Your task to perform on an android device: Play the last video I watched on Youtube Image 0: 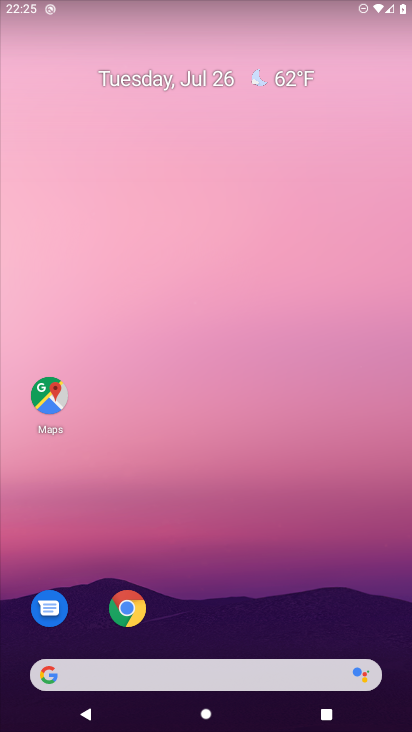
Step 0: drag from (20, 695) to (192, 94)
Your task to perform on an android device: Play the last video I watched on Youtube Image 1: 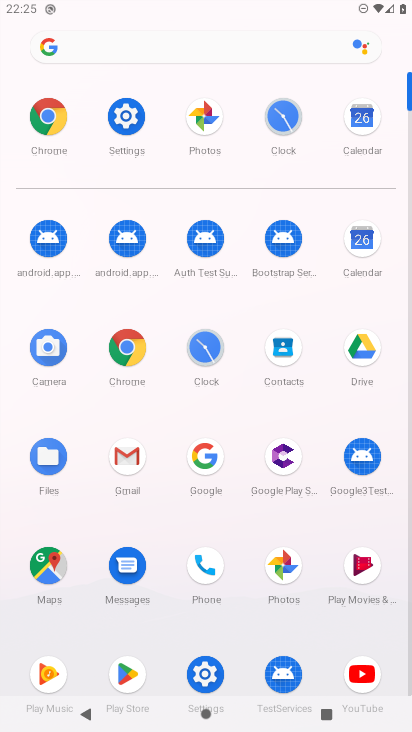
Step 1: click (361, 670)
Your task to perform on an android device: Play the last video I watched on Youtube Image 2: 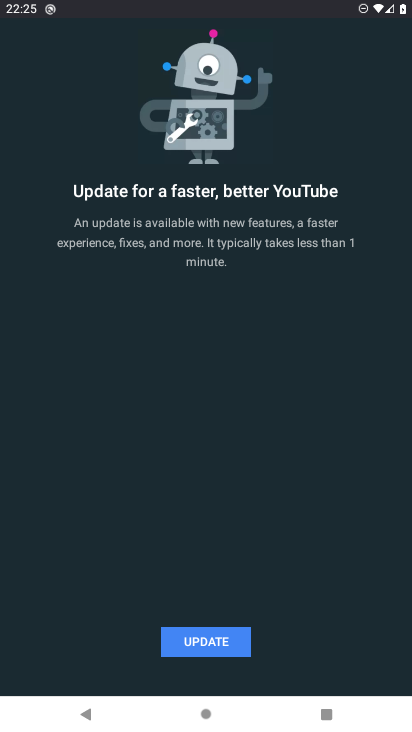
Step 2: click (211, 638)
Your task to perform on an android device: Play the last video I watched on Youtube Image 3: 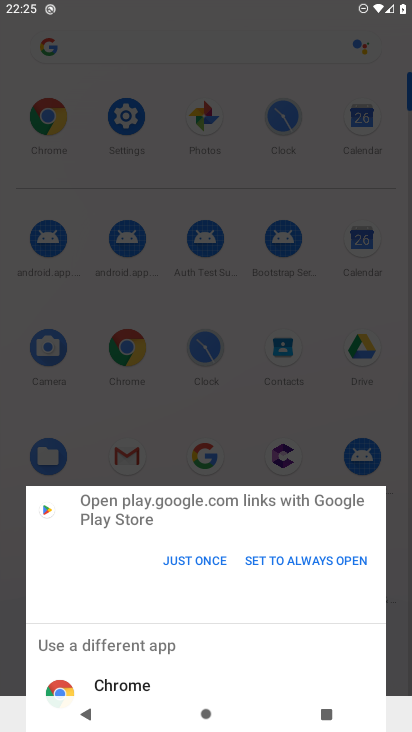
Step 3: click (195, 555)
Your task to perform on an android device: Play the last video I watched on Youtube Image 4: 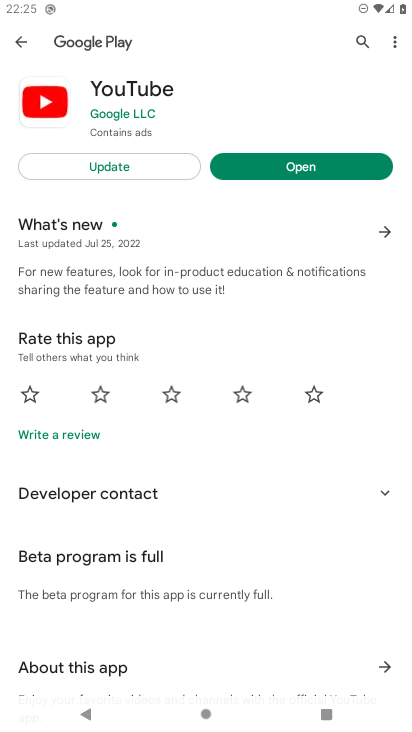
Step 4: task complete